Your task to perform on an android device: Turn on the flashlight Image 0: 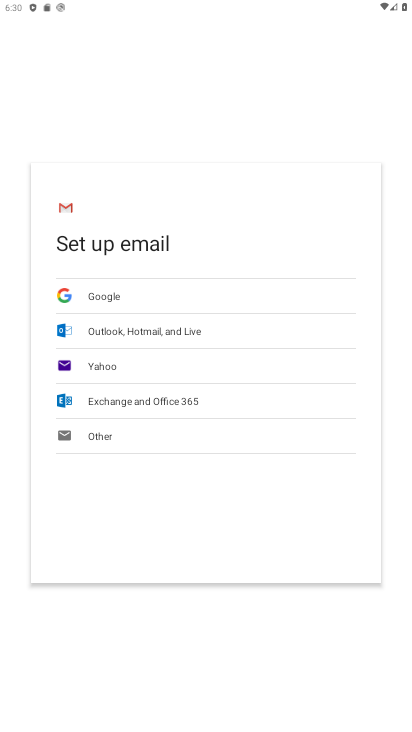
Step 0: press home button
Your task to perform on an android device: Turn on the flashlight Image 1: 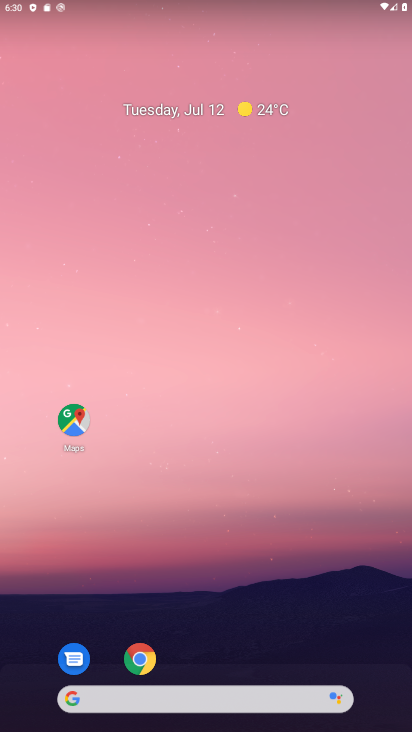
Step 1: drag from (387, 700) to (225, 85)
Your task to perform on an android device: Turn on the flashlight Image 2: 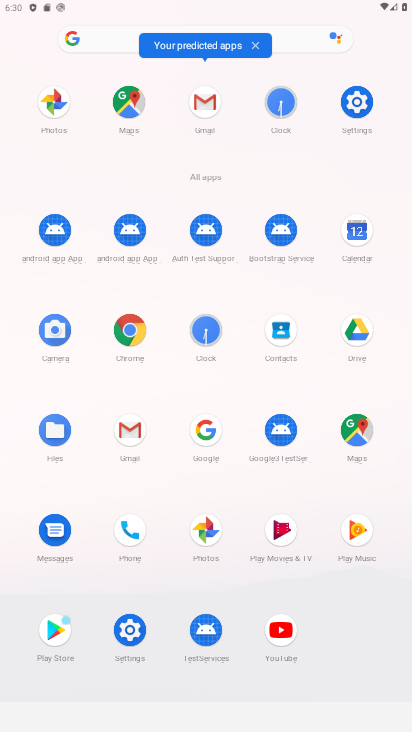
Step 2: click (353, 93)
Your task to perform on an android device: Turn on the flashlight Image 3: 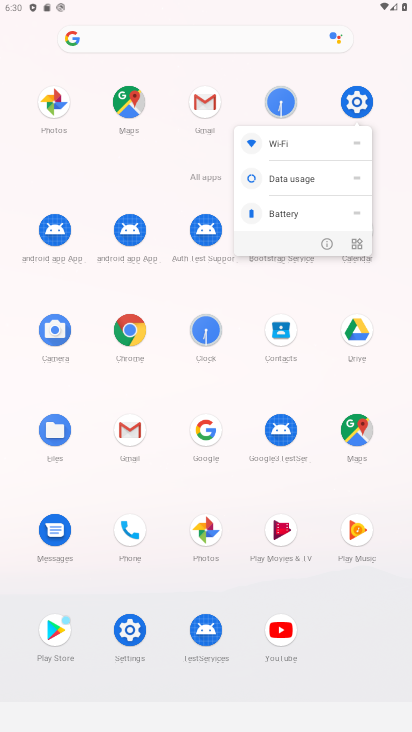
Step 3: click (354, 95)
Your task to perform on an android device: Turn on the flashlight Image 4: 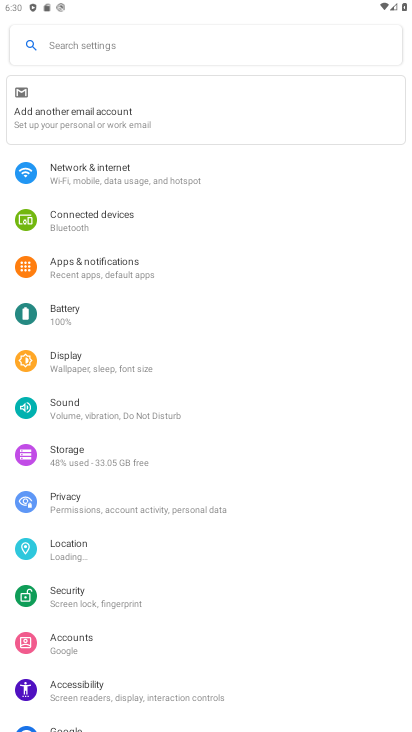
Step 4: task complete